Your task to perform on an android device: turn pop-ups on in chrome Image 0: 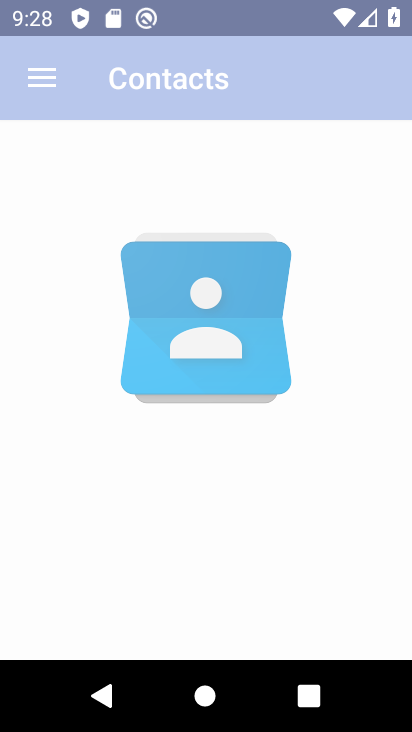
Step 0: click (263, 502)
Your task to perform on an android device: turn pop-ups on in chrome Image 1: 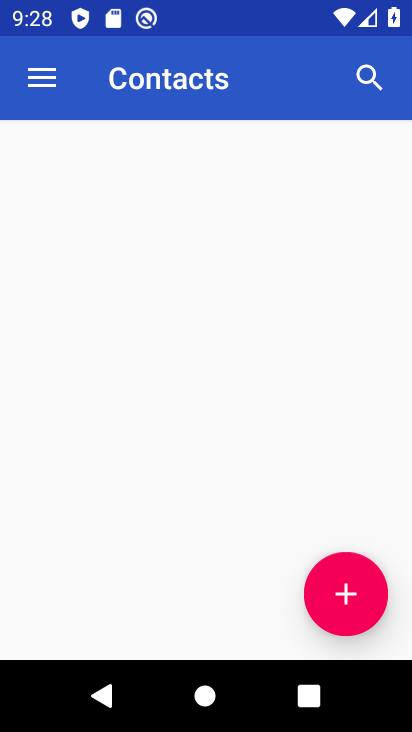
Step 1: click (263, 502)
Your task to perform on an android device: turn pop-ups on in chrome Image 2: 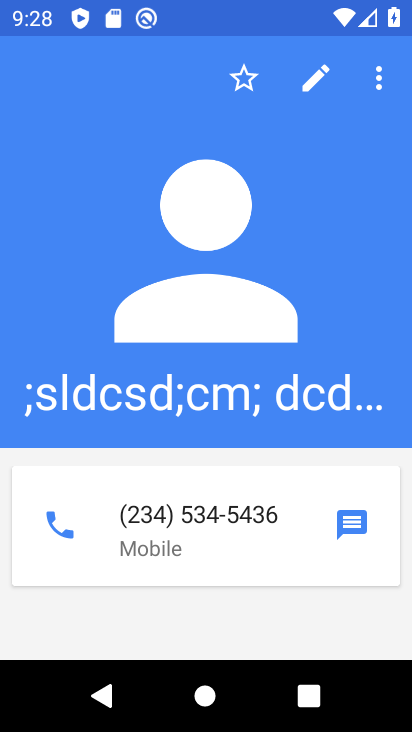
Step 2: press home button
Your task to perform on an android device: turn pop-ups on in chrome Image 3: 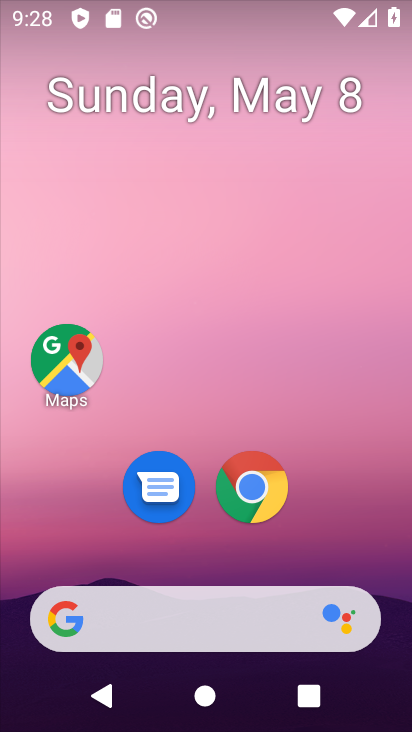
Step 3: click (259, 515)
Your task to perform on an android device: turn pop-ups on in chrome Image 4: 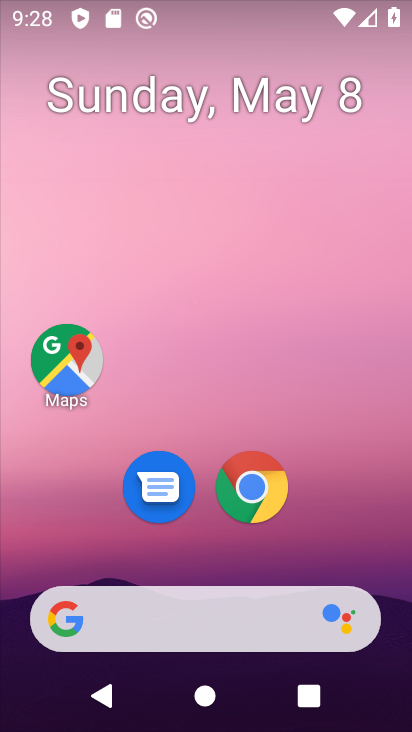
Step 4: click (259, 515)
Your task to perform on an android device: turn pop-ups on in chrome Image 5: 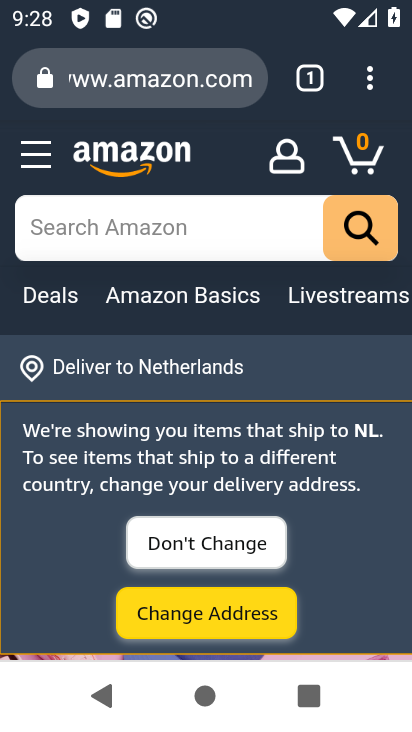
Step 5: drag from (367, 95) to (324, 571)
Your task to perform on an android device: turn pop-ups on in chrome Image 6: 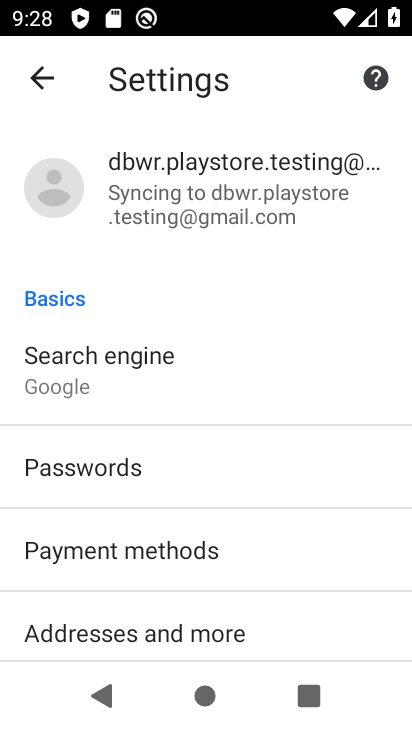
Step 6: drag from (251, 575) to (329, 250)
Your task to perform on an android device: turn pop-ups on in chrome Image 7: 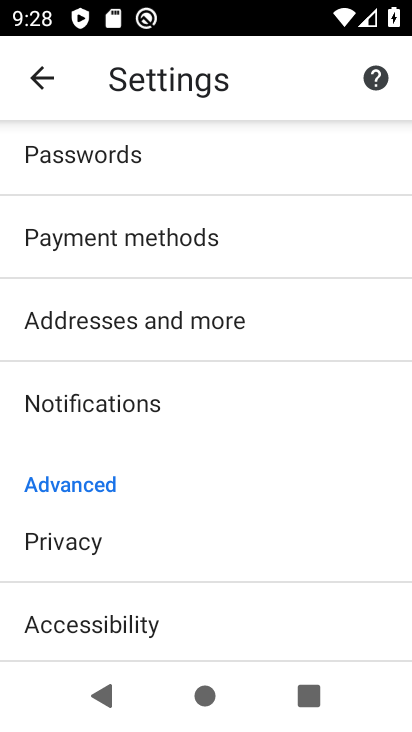
Step 7: drag from (224, 640) to (293, 390)
Your task to perform on an android device: turn pop-ups on in chrome Image 8: 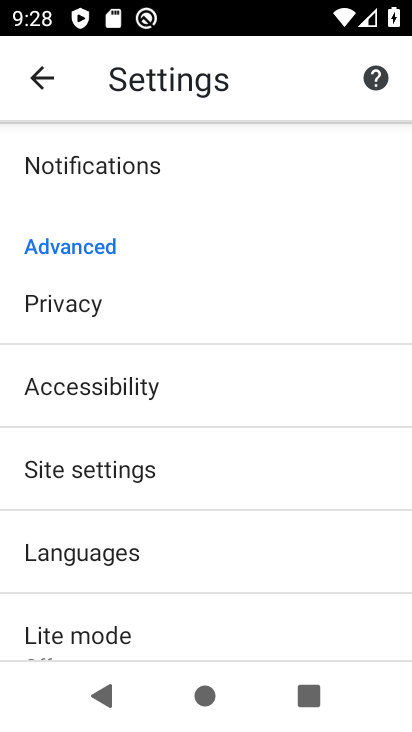
Step 8: click (215, 506)
Your task to perform on an android device: turn pop-ups on in chrome Image 9: 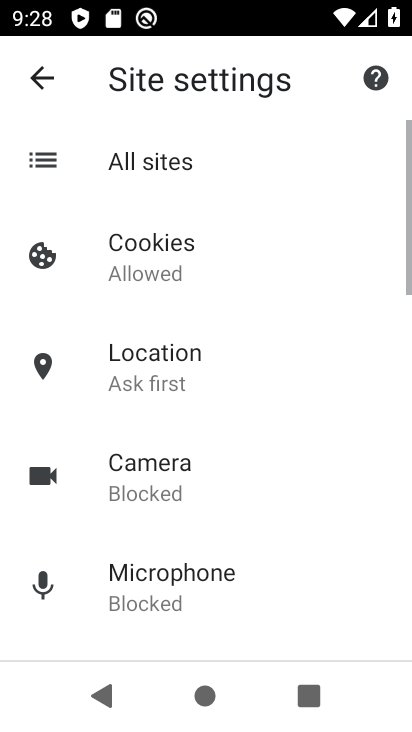
Step 9: drag from (215, 506) to (277, 318)
Your task to perform on an android device: turn pop-ups on in chrome Image 10: 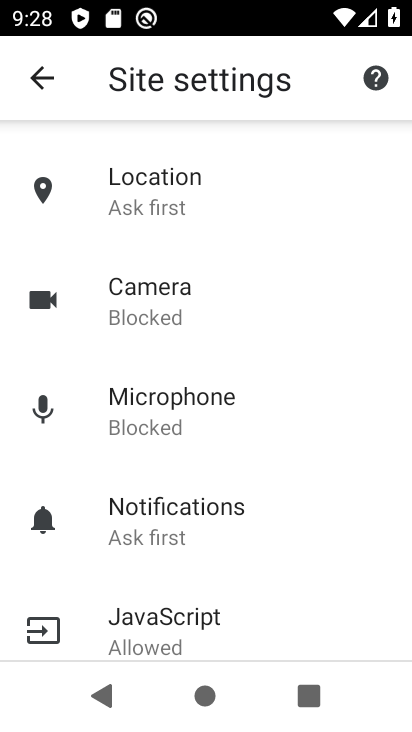
Step 10: drag from (215, 632) to (335, 316)
Your task to perform on an android device: turn pop-ups on in chrome Image 11: 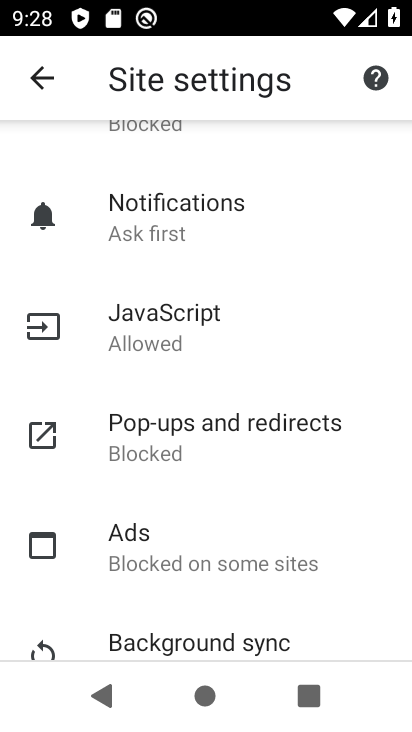
Step 11: drag from (208, 619) to (407, 56)
Your task to perform on an android device: turn pop-ups on in chrome Image 12: 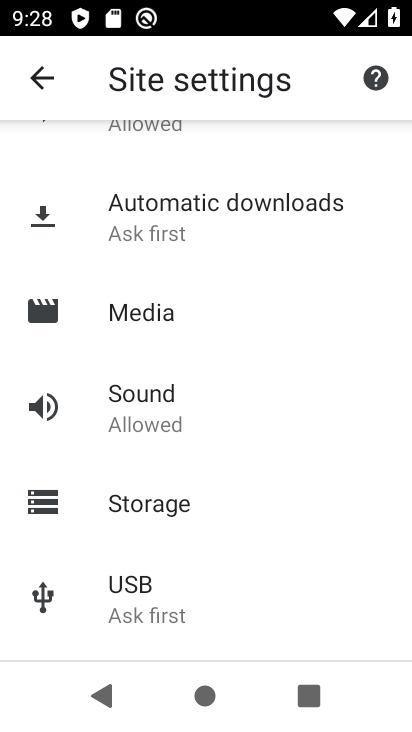
Step 12: drag from (248, 162) to (250, 279)
Your task to perform on an android device: turn pop-ups on in chrome Image 13: 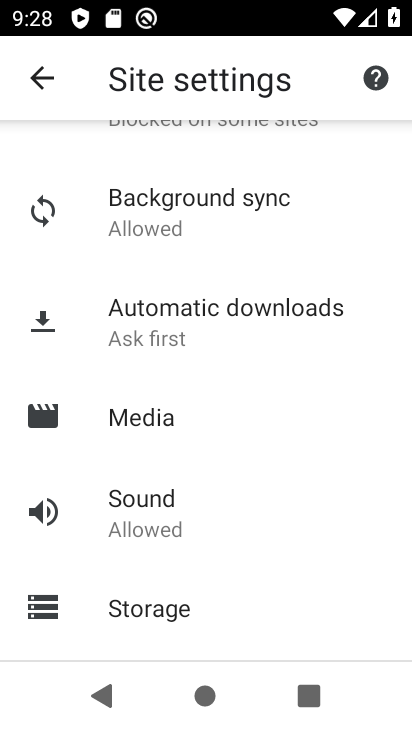
Step 13: drag from (275, 203) to (283, 514)
Your task to perform on an android device: turn pop-ups on in chrome Image 14: 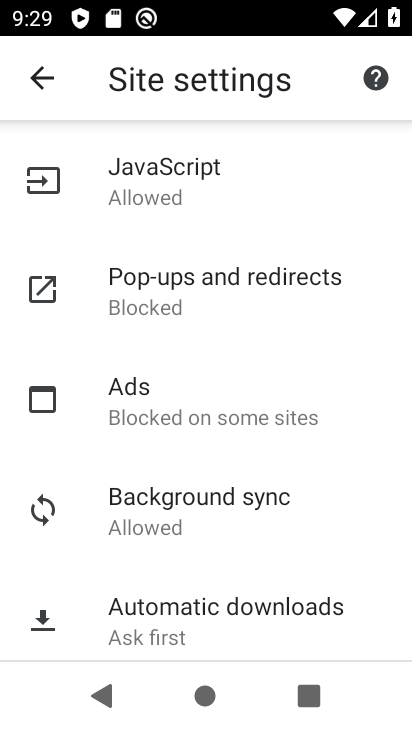
Step 14: click (282, 314)
Your task to perform on an android device: turn pop-ups on in chrome Image 15: 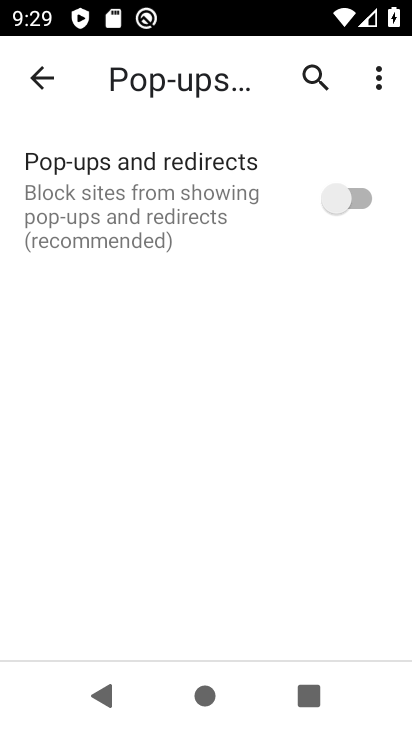
Step 15: click (364, 198)
Your task to perform on an android device: turn pop-ups on in chrome Image 16: 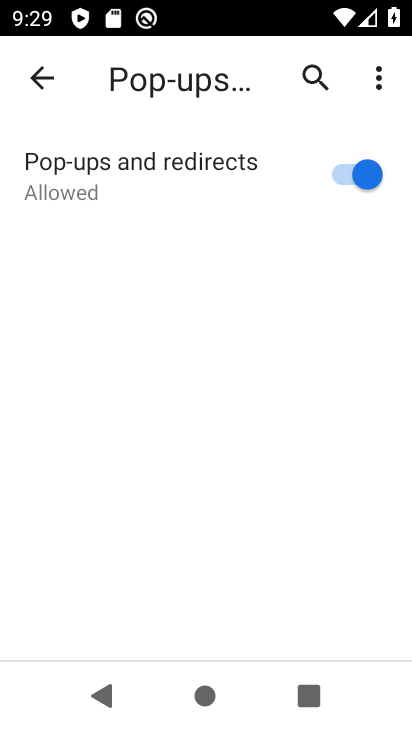
Step 16: task complete